Your task to perform on an android device: change the clock display to show seconds Image 0: 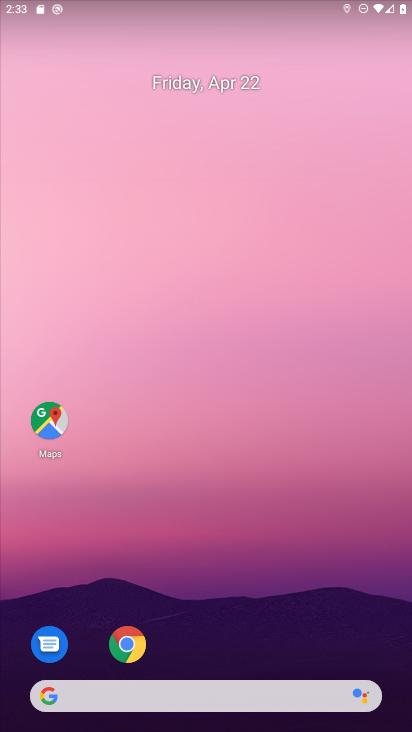
Step 0: drag from (278, 620) to (295, 88)
Your task to perform on an android device: change the clock display to show seconds Image 1: 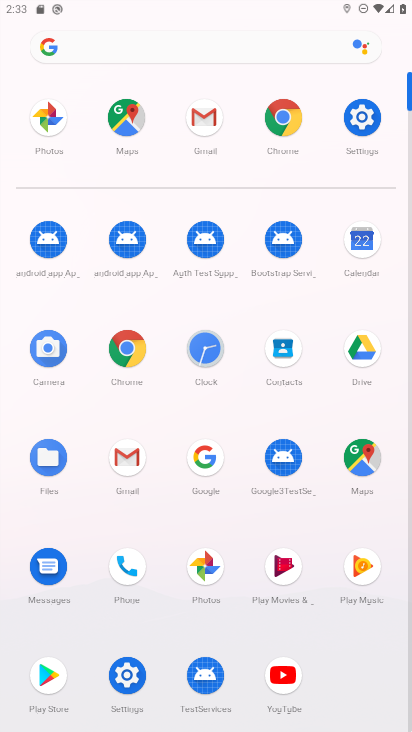
Step 1: click (200, 344)
Your task to perform on an android device: change the clock display to show seconds Image 2: 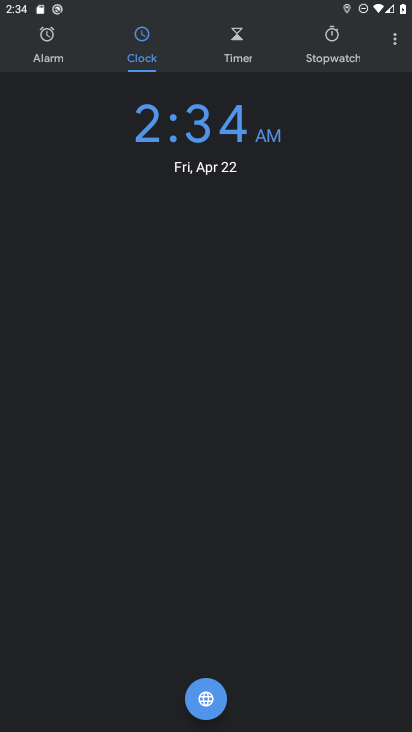
Step 2: click (395, 41)
Your task to perform on an android device: change the clock display to show seconds Image 3: 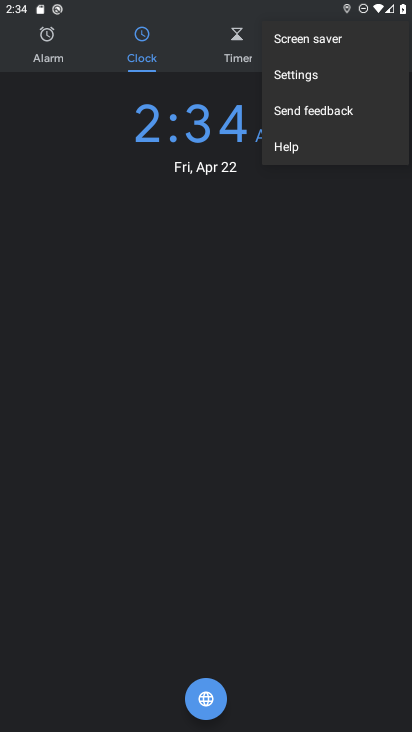
Step 3: click (286, 87)
Your task to perform on an android device: change the clock display to show seconds Image 4: 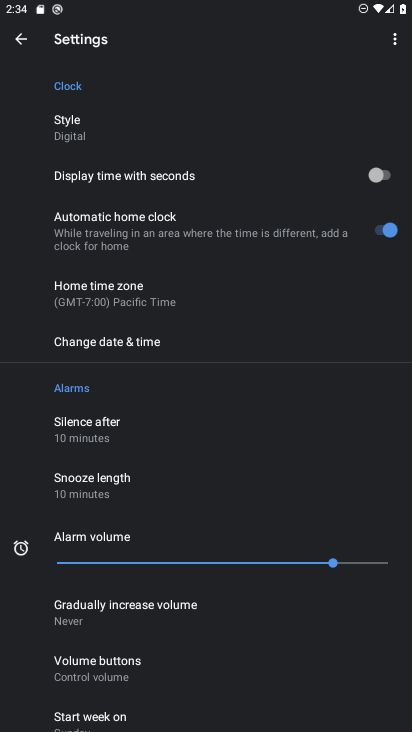
Step 4: click (349, 175)
Your task to perform on an android device: change the clock display to show seconds Image 5: 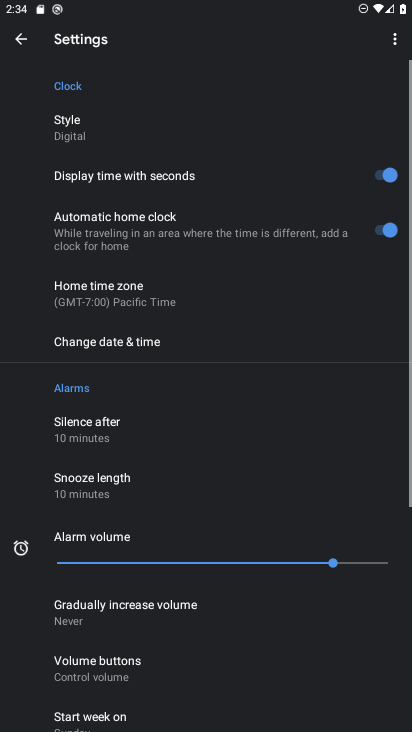
Step 5: task complete